Your task to perform on an android device: Is it going to rain today? Image 0: 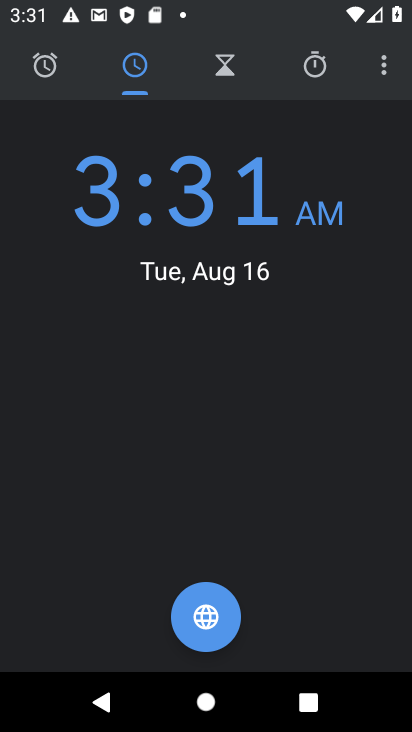
Step 0: press home button
Your task to perform on an android device: Is it going to rain today? Image 1: 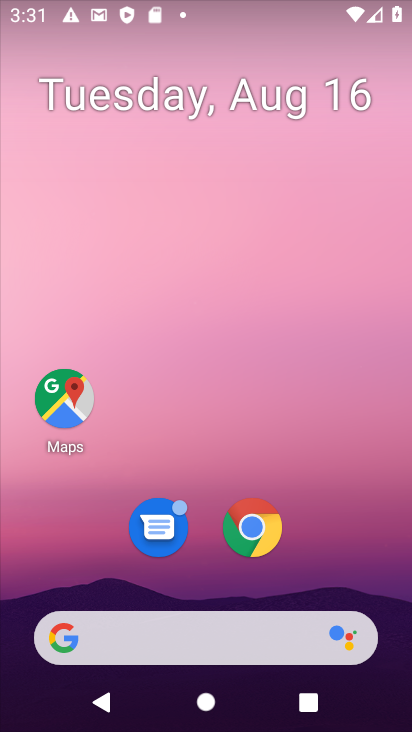
Step 1: drag from (225, 588) to (219, 18)
Your task to perform on an android device: Is it going to rain today? Image 2: 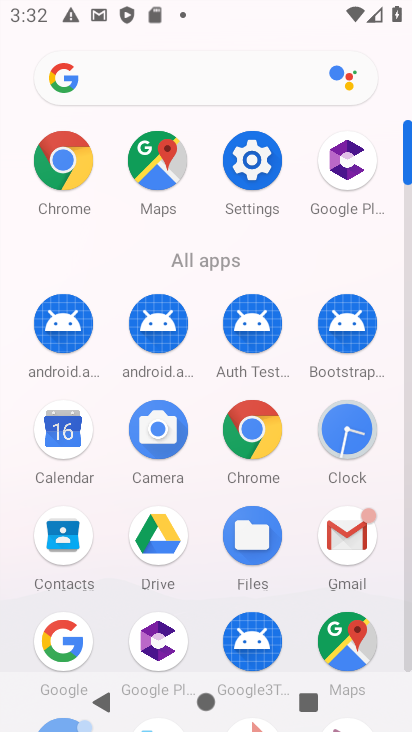
Step 2: click (251, 430)
Your task to perform on an android device: Is it going to rain today? Image 3: 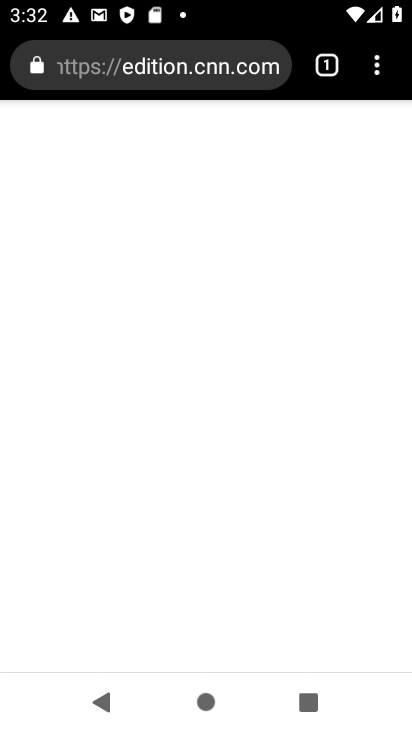
Step 3: click (219, 62)
Your task to perform on an android device: Is it going to rain today? Image 4: 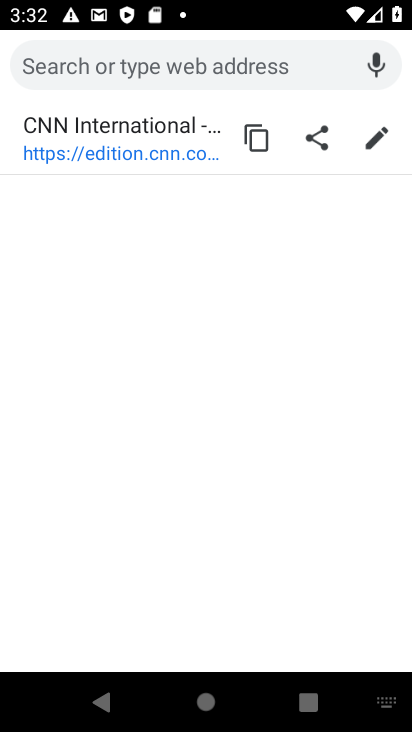
Step 4: type "Is it going to rain today?"
Your task to perform on an android device: Is it going to rain today? Image 5: 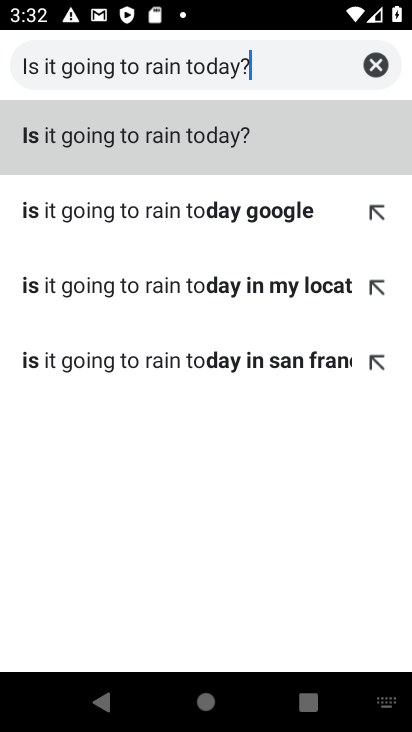
Step 5: click (175, 150)
Your task to perform on an android device: Is it going to rain today? Image 6: 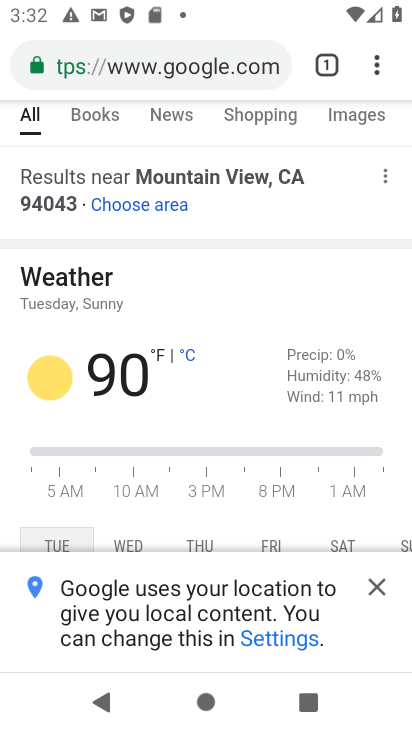
Step 6: click (127, 65)
Your task to perform on an android device: Is it going to rain today? Image 7: 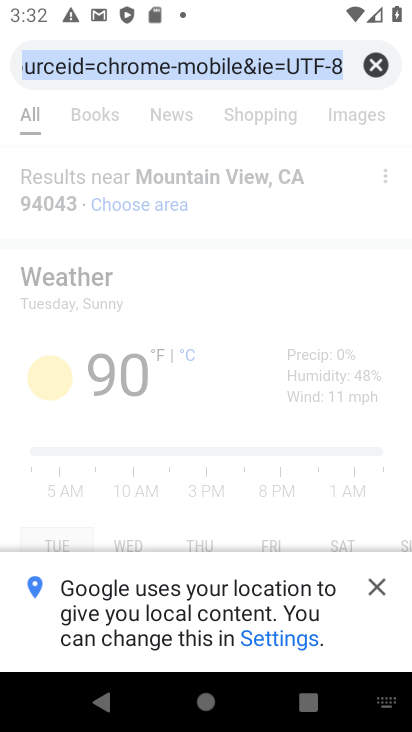
Step 7: click (304, 375)
Your task to perform on an android device: Is it going to rain today? Image 8: 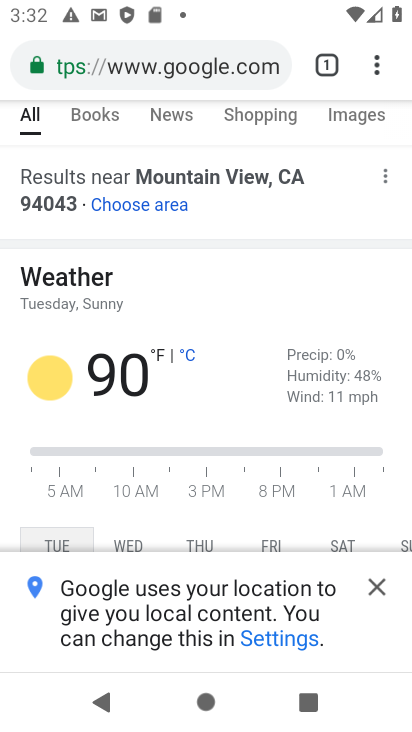
Step 8: task complete